Your task to perform on an android device: Clear all items from cart on costco. Search for "macbook" on costco, select the first entry, and add it to the cart. Image 0: 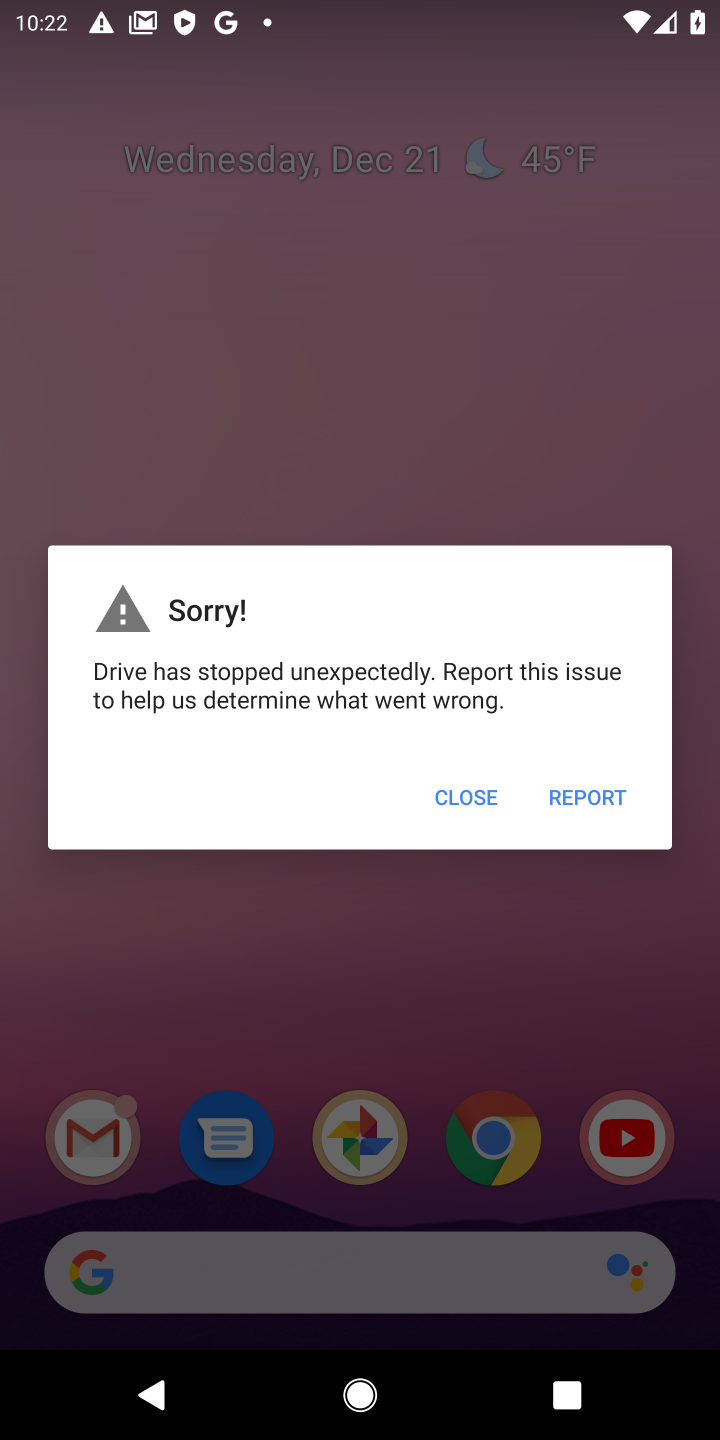
Step 0: press home button
Your task to perform on an android device: Clear all items from cart on costco. Search for "macbook" on costco, select the first entry, and add it to the cart. Image 1: 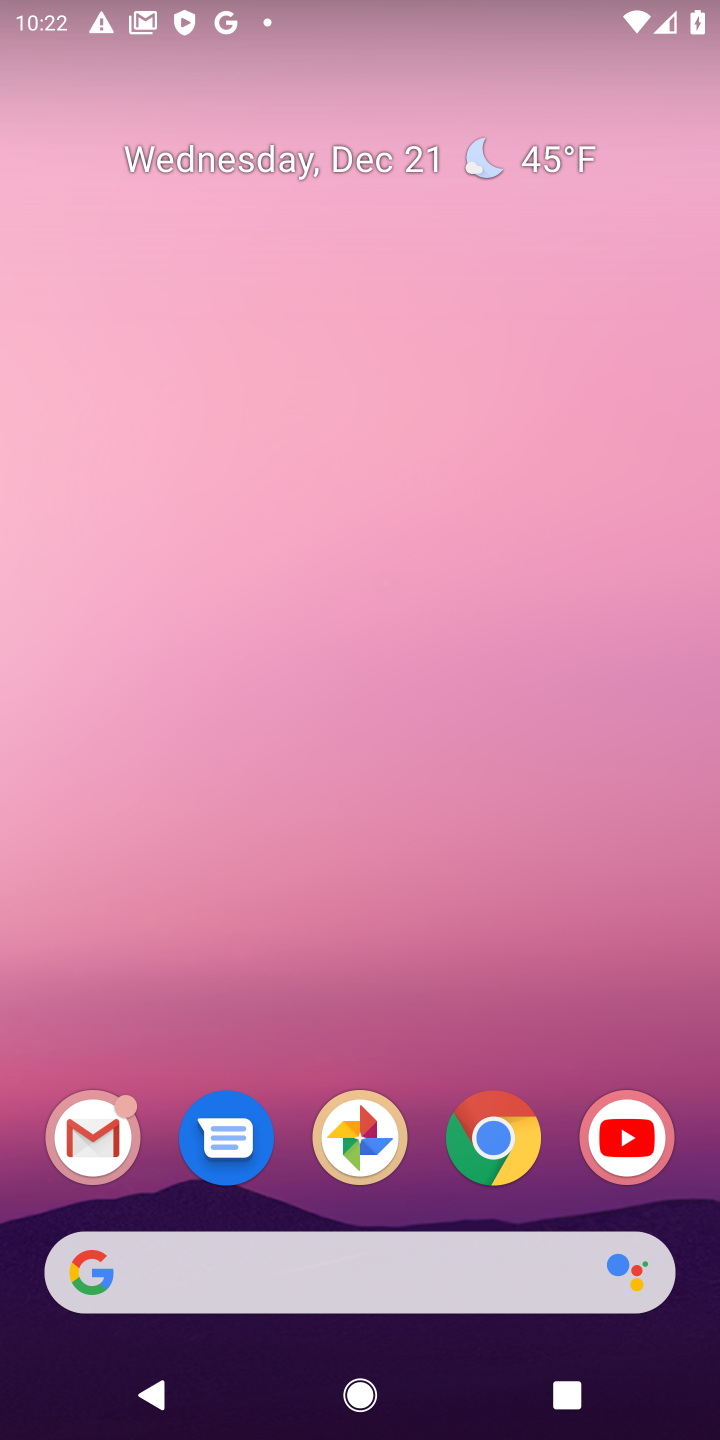
Step 1: click (495, 1142)
Your task to perform on an android device: Clear all items from cart on costco. Search for "macbook" on costco, select the first entry, and add it to the cart. Image 2: 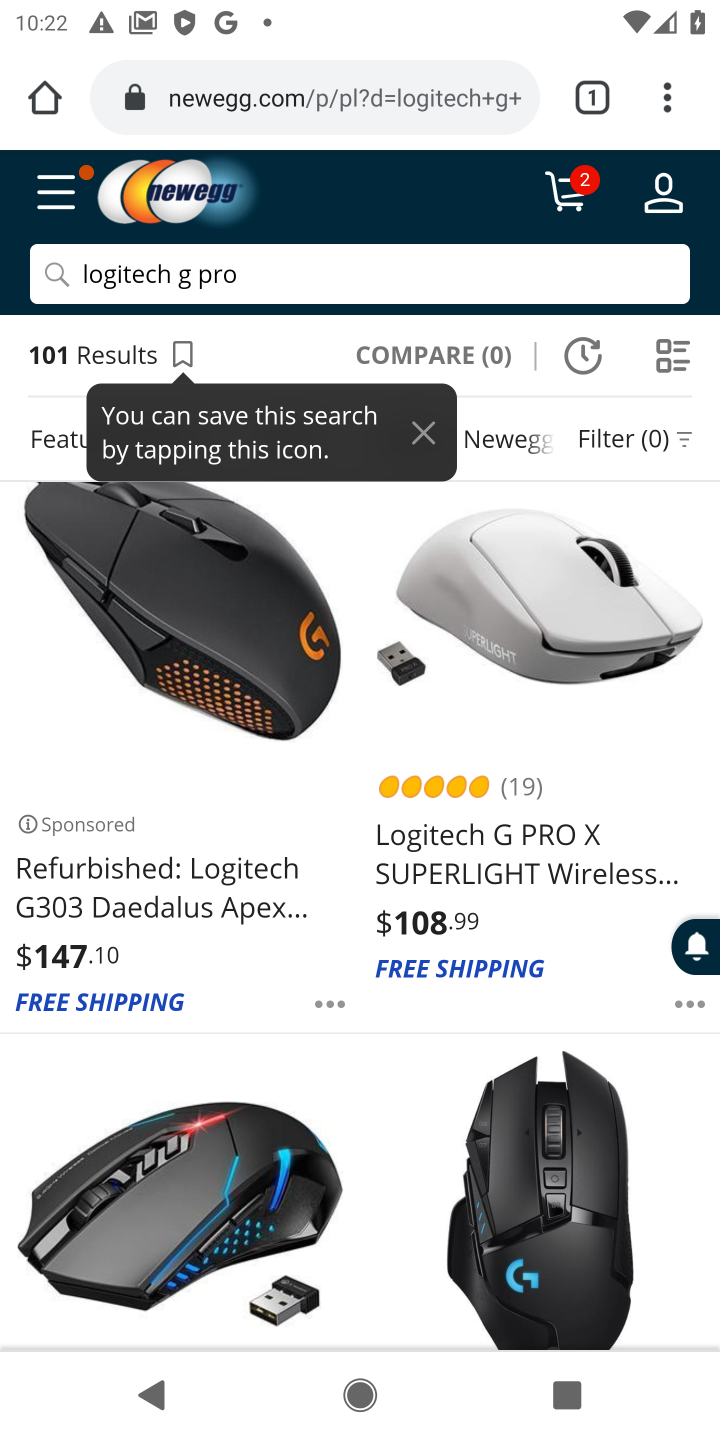
Step 2: click (233, 96)
Your task to perform on an android device: Clear all items from cart on costco. Search for "macbook" on costco, select the first entry, and add it to the cart. Image 3: 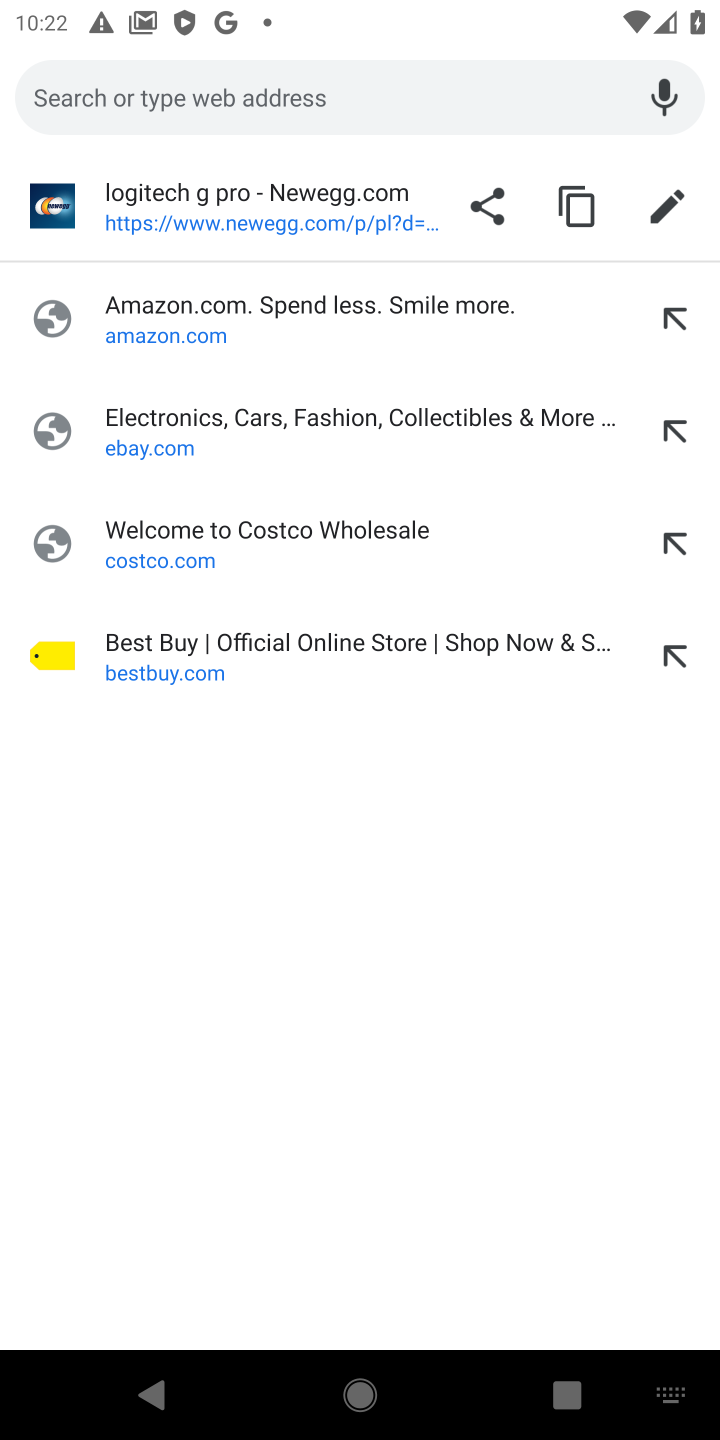
Step 3: click (142, 548)
Your task to perform on an android device: Clear all items from cart on costco. Search for "macbook" on costco, select the first entry, and add it to the cart. Image 4: 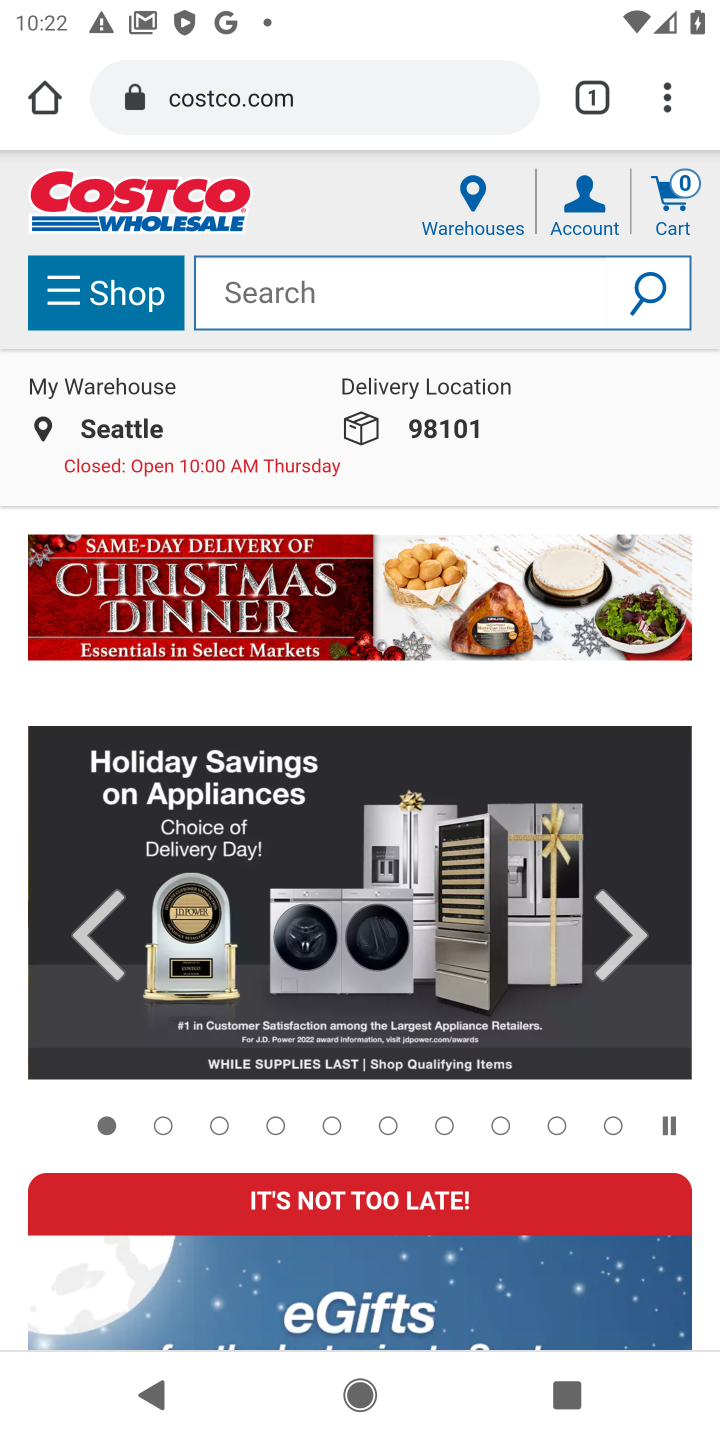
Step 4: click (665, 215)
Your task to perform on an android device: Clear all items from cart on costco. Search for "macbook" on costco, select the first entry, and add it to the cart. Image 5: 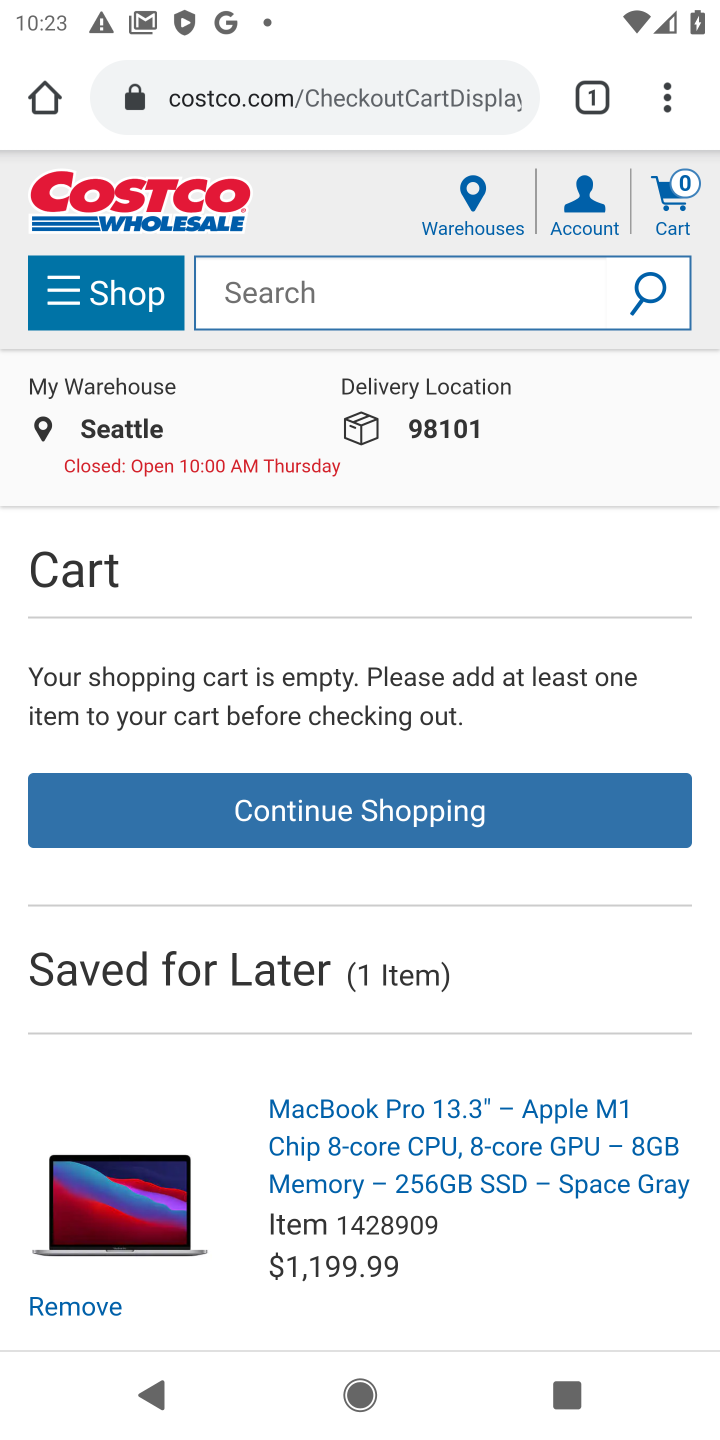
Step 5: click (278, 297)
Your task to perform on an android device: Clear all items from cart on costco. Search for "macbook" on costco, select the first entry, and add it to the cart. Image 6: 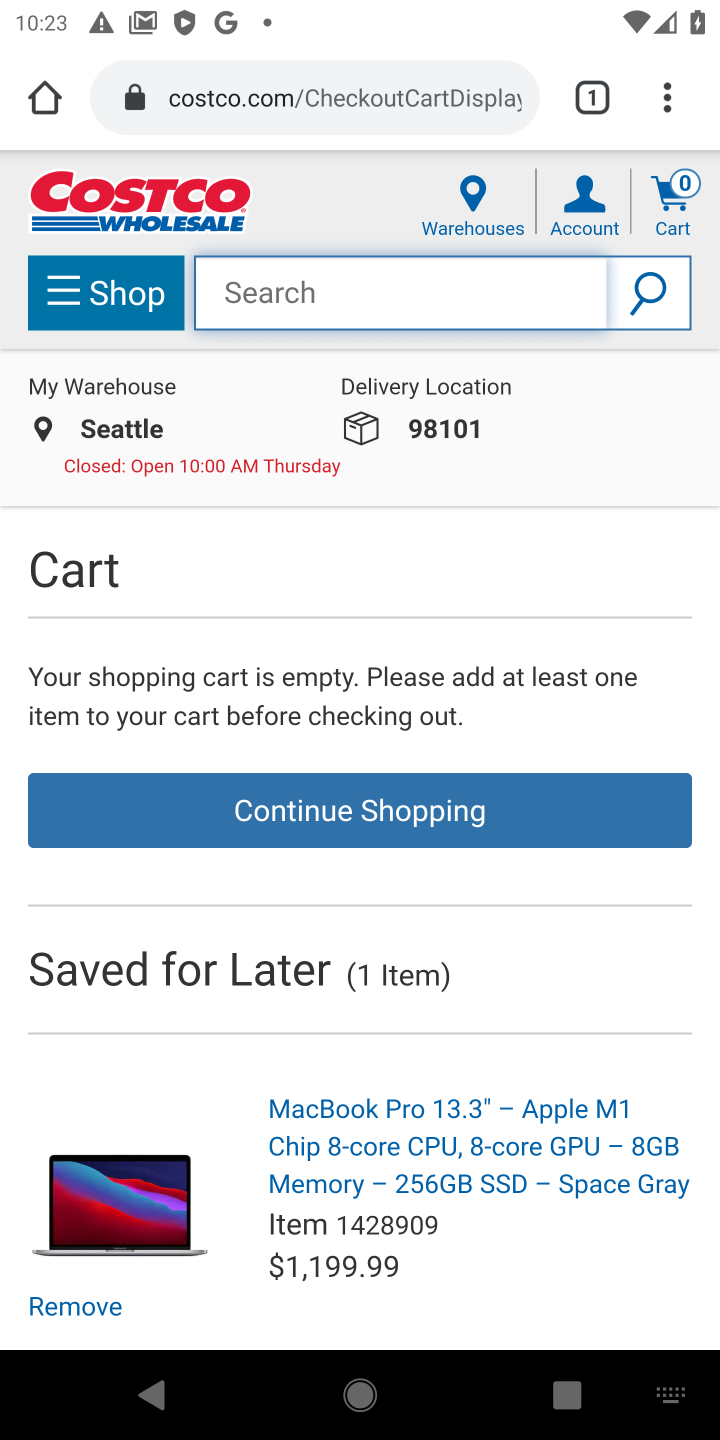
Step 6: type "macbook"
Your task to perform on an android device: Clear all items from cart on costco. Search for "macbook" on costco, select the first entry, and add it to the cart. Image 7: 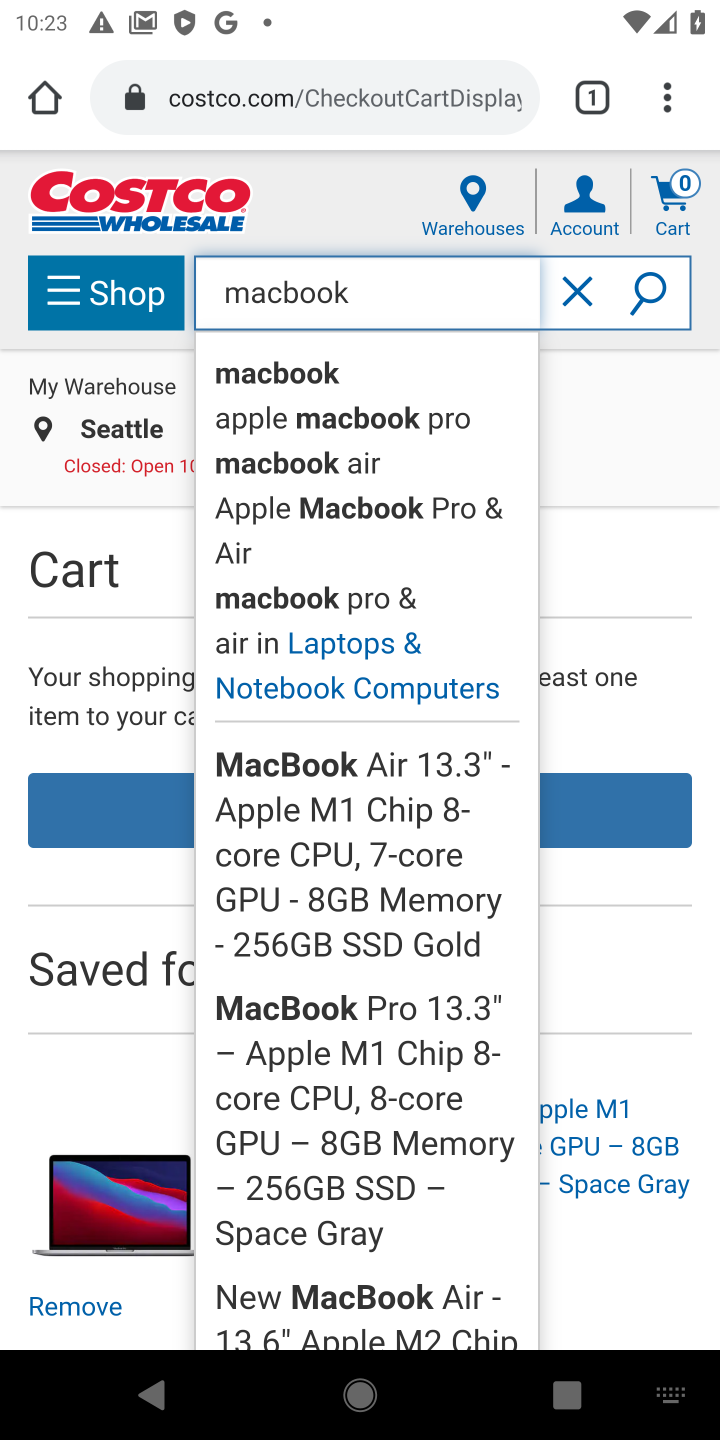
Step 7: click (649, 283)
Your task to perform on an android device: Clear all items from cart on costco. Search for "macbook" on costco, select the first entry, and add it to the cart. Image 8: 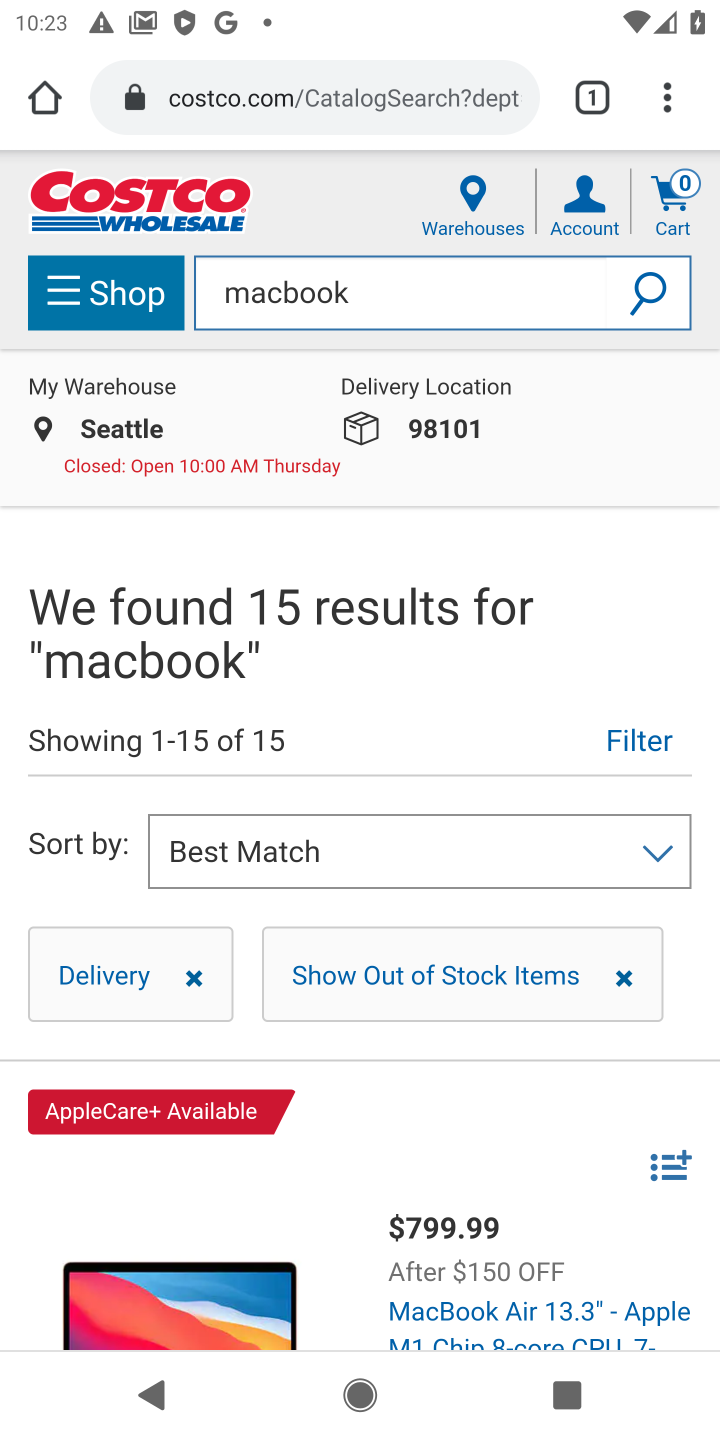
Step 8: drag from (355, 1161) to (382, 560)
Your task to perform on an android device: Clear all items from cart on costco. Search for "macbook" on costco, select the first entry, and add it to the cart. Image 9: 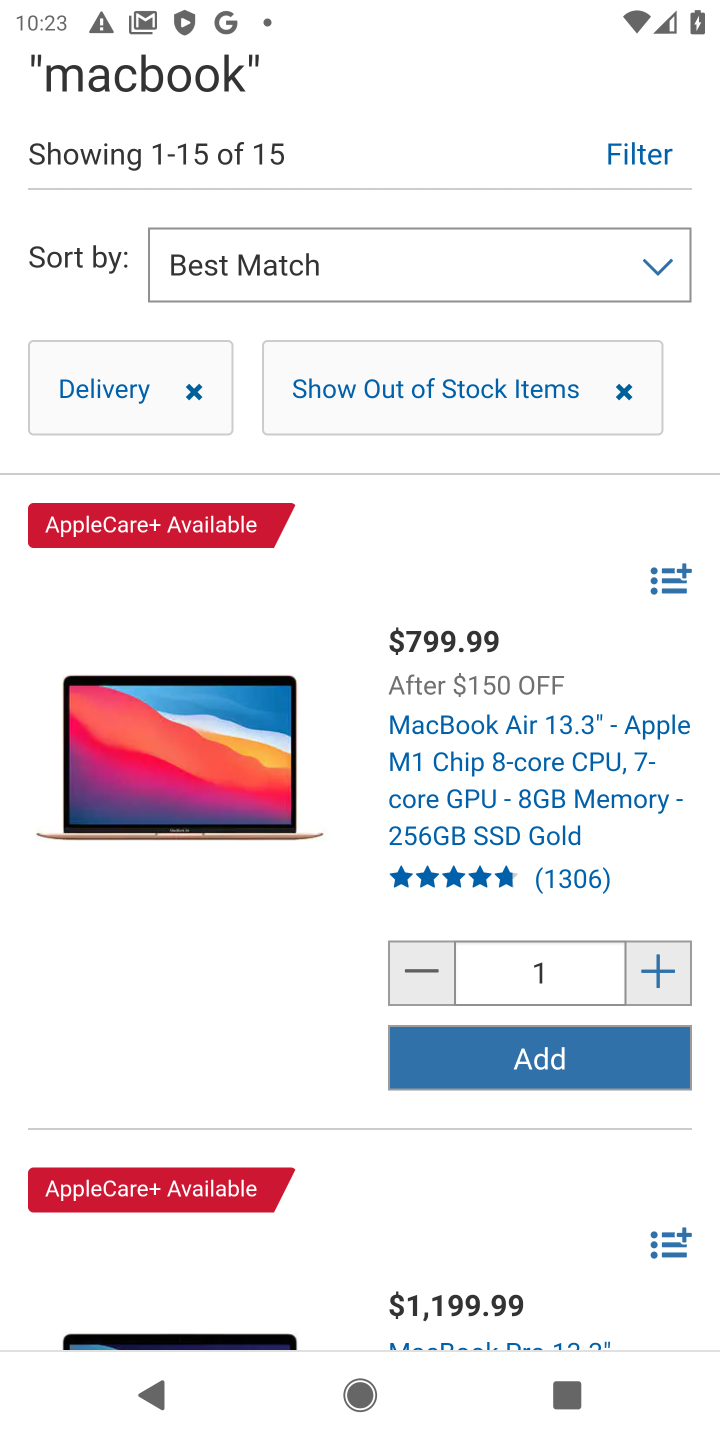
Step 9: click (555, 1062)
Your task to perform on an android device: Clear all items from cart on costco. Search for "macbook" on costco, select the first entry, and add it to the cart. Image 10: 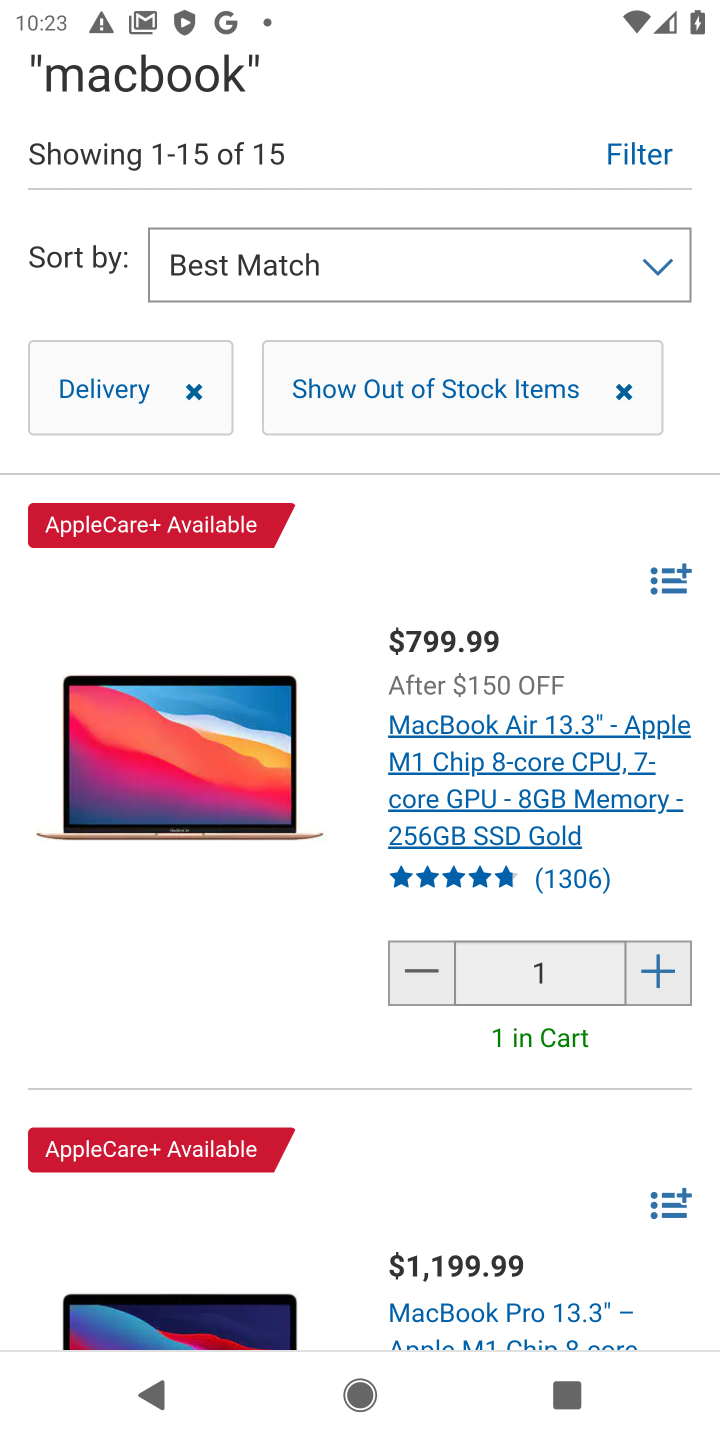
Step 10: task complete